Your task to perform on an android device: Clear all items from cart on costco.com. Image 0: 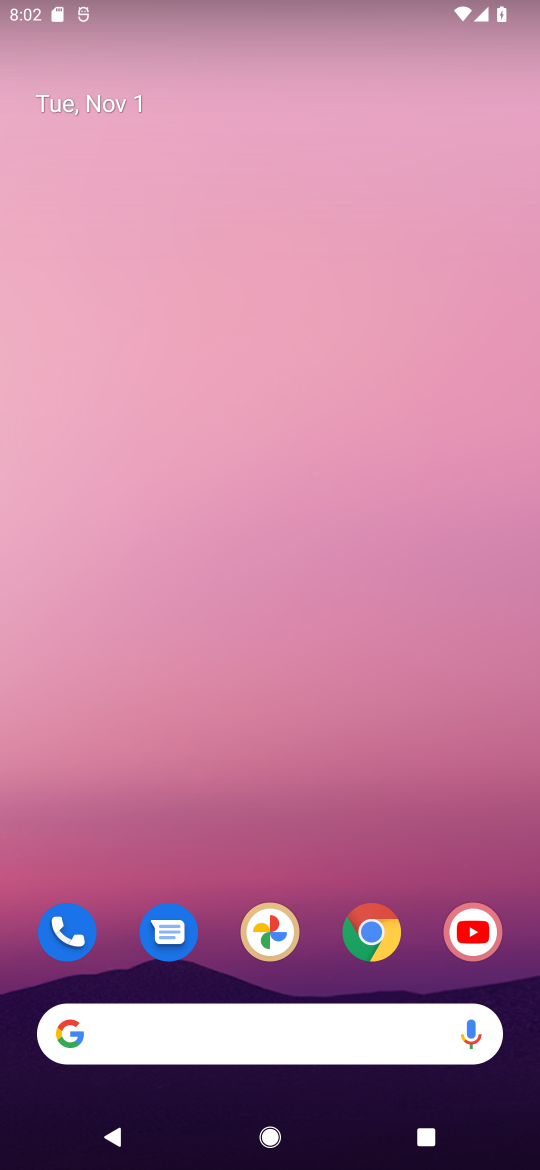
Step 0: click (368, 941)
Your task to perform on an android device: Clear all items from cart on costco.com. Image 1: 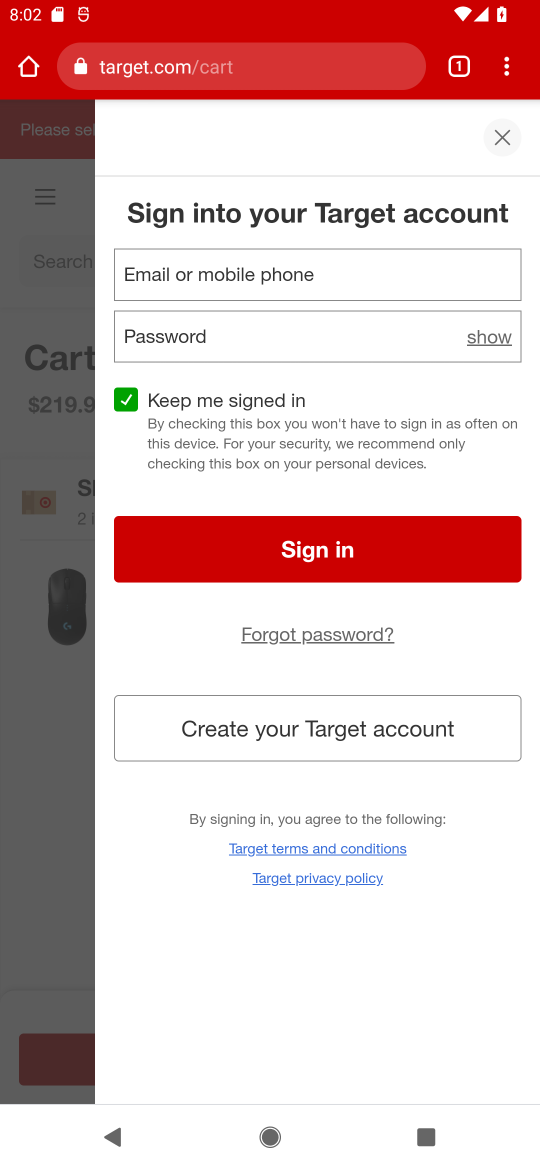
Step 1: click (295, 68)
Your task to perform on an android device: Clear all items from cart on costco.com. Image 2: 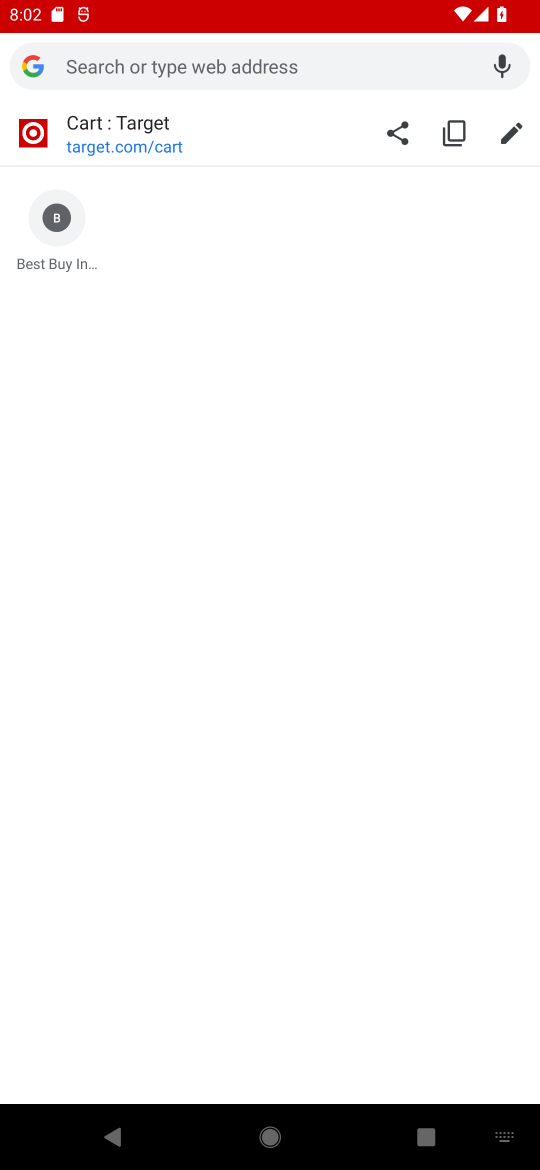
Step 2: type "costco.com."
Your task to perform on an android device: Clear all items from cart on costco.com. Image 3: 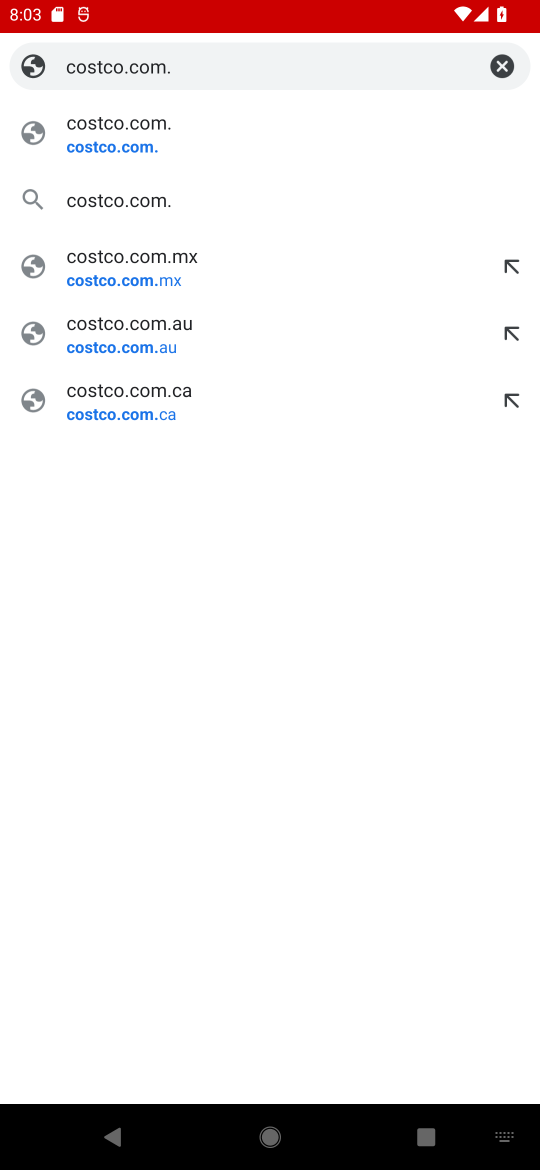
Step 3: click (123, 147)
Your task to perform on an android device: Clear all items from cart on costco.com. Image 4: 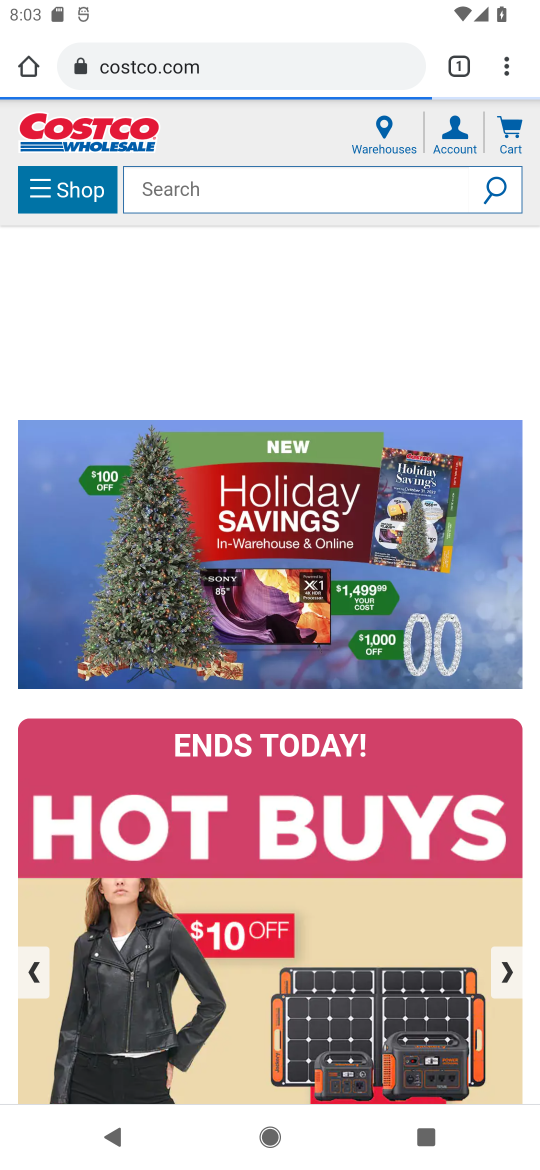
Step 4: click (516, 134)
Your task to perform on an android device: Clear all items from cart on costco.com. Image 5: 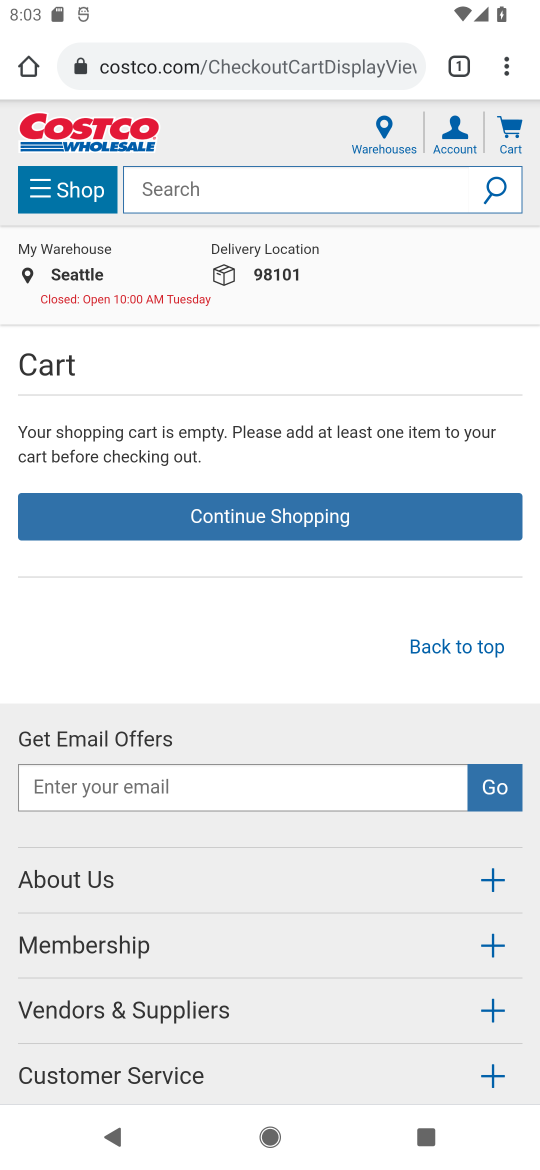
Step 5: task complete